Your task to perform on an android device: Open Android settings Image 0: 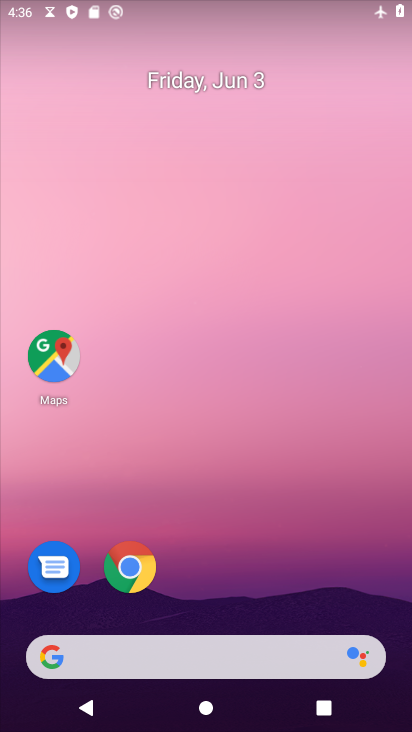
Step 0: drag from (311, 545) to (212, 52)
Your task to perform on an android device: Open Android settings Image 1: 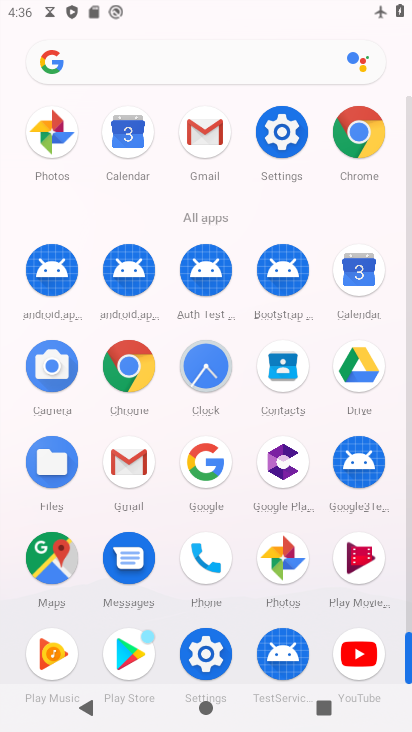
Step 1: click (206, 652)
Your task to perform on an android device: Open Android settings Image 2: 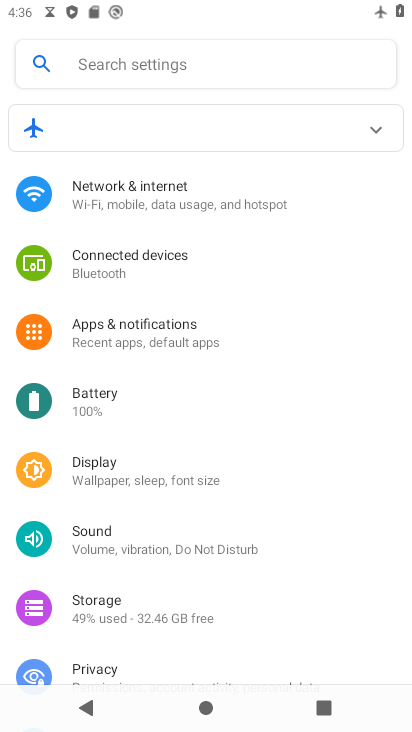
Step 2: task complete